Your task to perform on an android device: Open Google Maps Image 0: 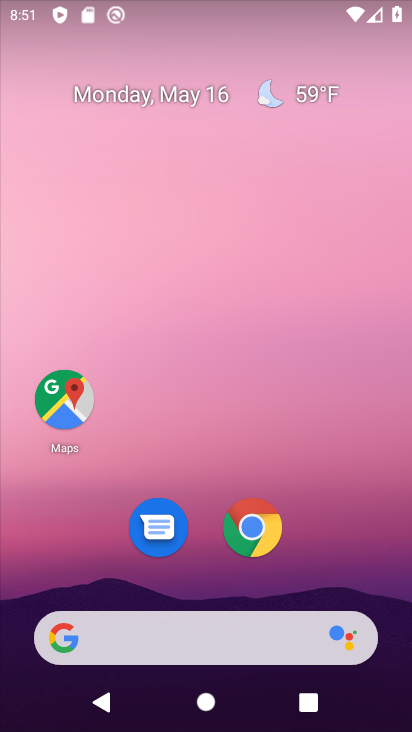
Step 0: click (63, 401)
Your task to perform on an android device: Open Google Maps Image 1: 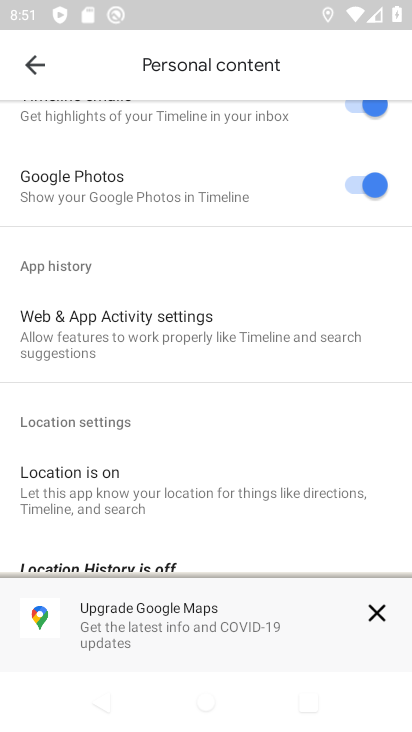
Step 1: drag from (253, 498) to (231, 226)
Your task to perform on an android device: Open Google Maps Image 2: 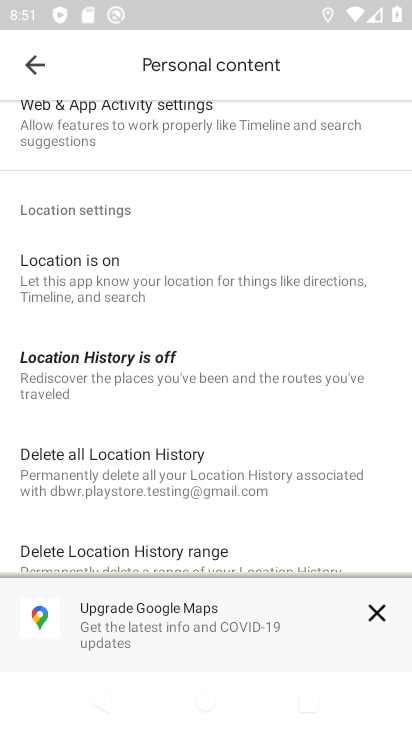
Step 2: drag from (235, 550) to (188, 337)
Your task to perform on an android device: Open Google Maps Image 3: 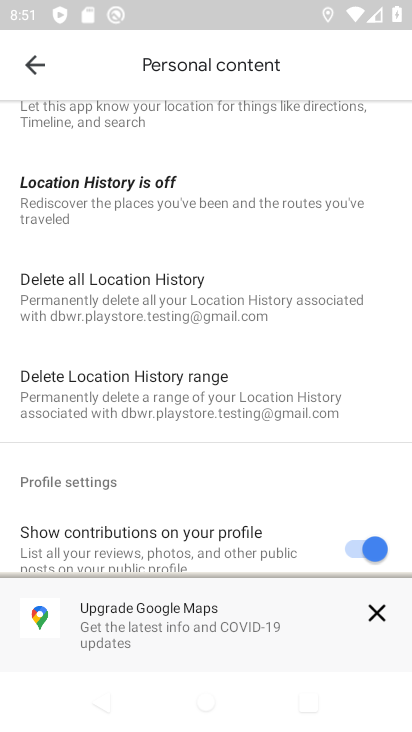
Step 3: drag from (234, 530) to (222, 260)
Your task to perform on an android device: Open Google Maps Image 4: 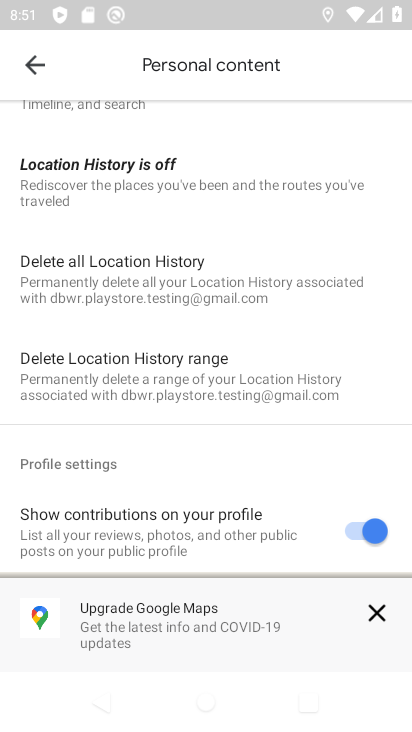
Step 4: click (31, 55)
Your task to perform on an android device: Open Google Maps Image 5: 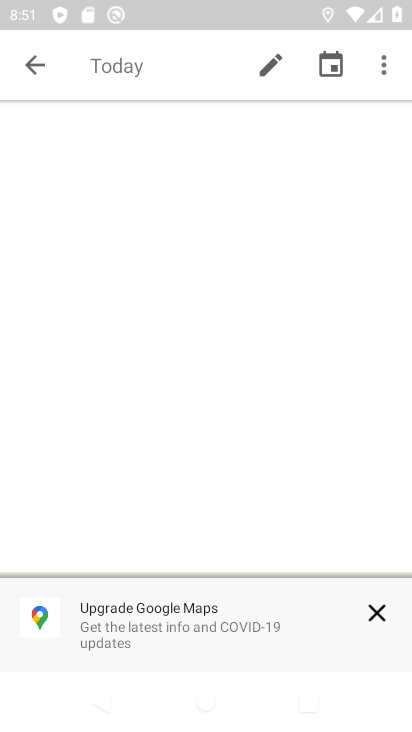
Step 5: click (33, 60)
Your task to perform on an android device: Open Google Maps Image 6: 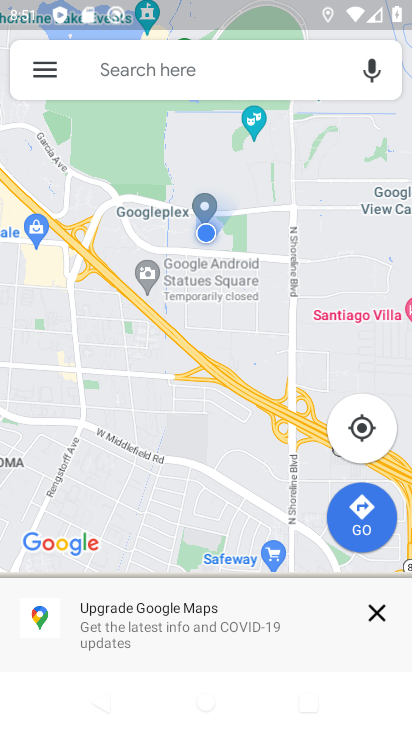
Step 6: task complete